Your task to perform on an android device: Open calendar and show me the first week of next month Image 0: 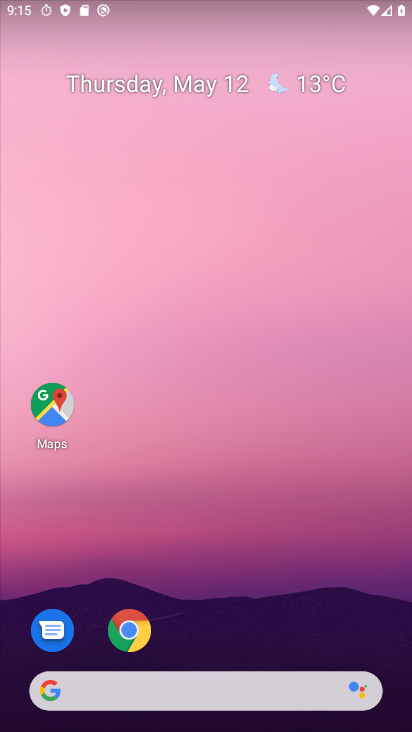
Step 0: drag from (235, 680) to (236, 259)
Your task to perform on an android device: Open calendar and show me the first week of next month Image 1: 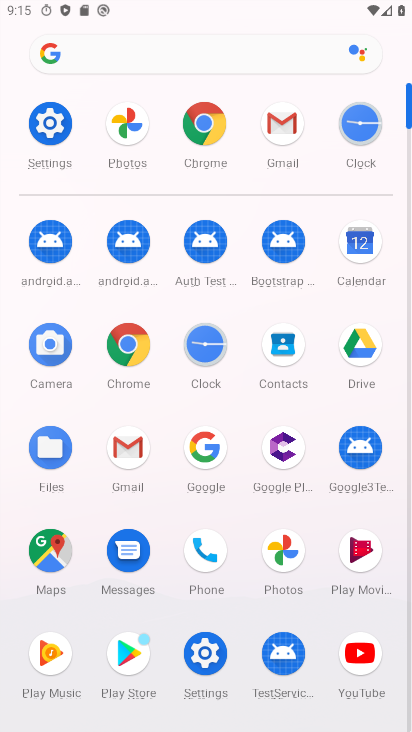
Step 1: click (357, 234)
Your task to perform on an android device: Open calendar and show me the first week of next month Image 2: 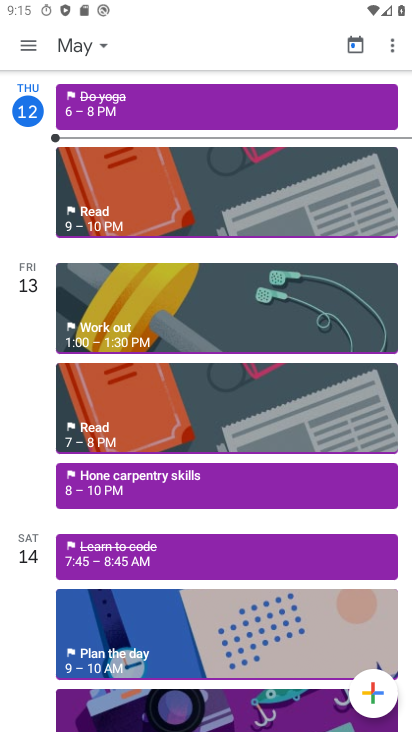
Step 2: click (15, 41)
Your task to perform on an android device: Open calendar and show me the first week of next month Image 3: 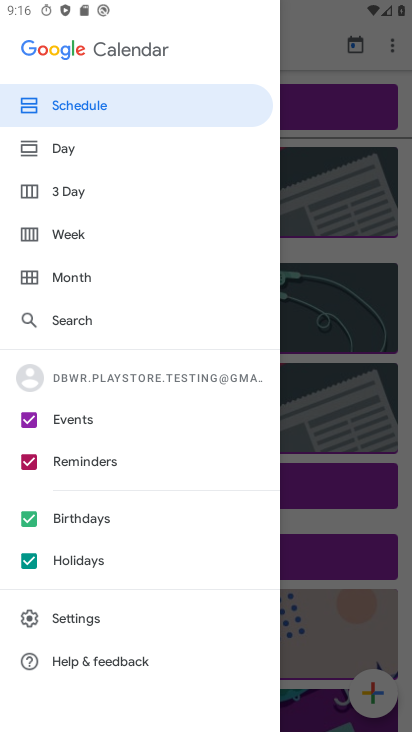
Step 3: click (81, 276)
Your task to perform on an android device: Open calendar and show me the first week of next month Image 4: 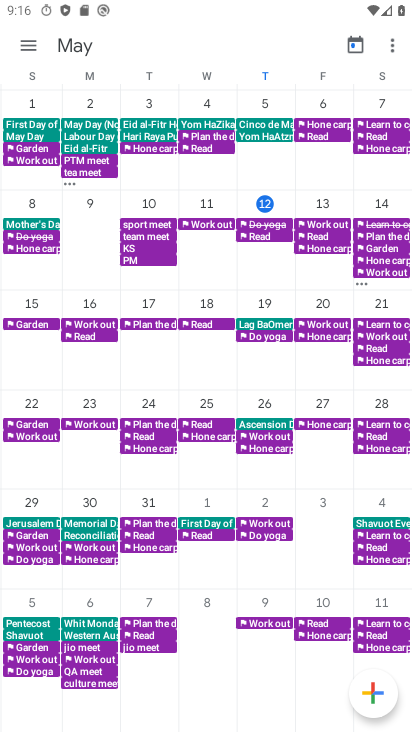
Step 4: task complete